Your task to perform on an android device: What's the weather going to be tomorrow? Image 0: 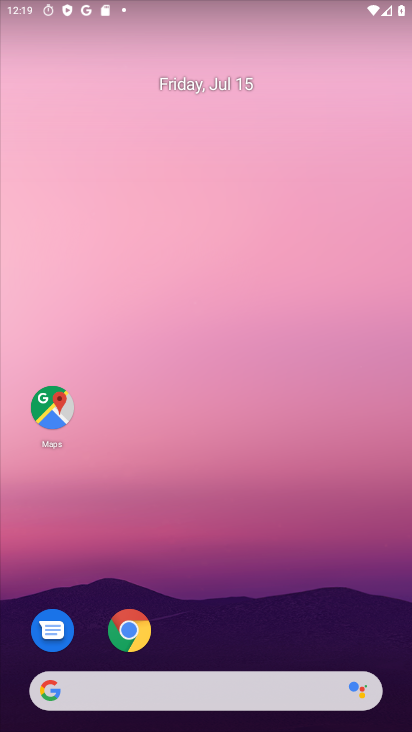
Step 0: drag from (250, 293) to (257, 237)
Your task to perform on an android device: What's the weather going to be tomorrow? Image 1: 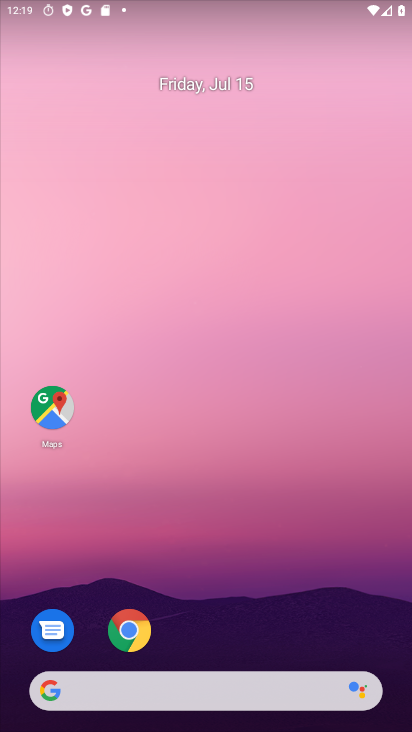
Step 1: drag from (201, 599) to (335, 177)
Your task to perform on an android device: What's the weather going to be tomorrow? Image 2: 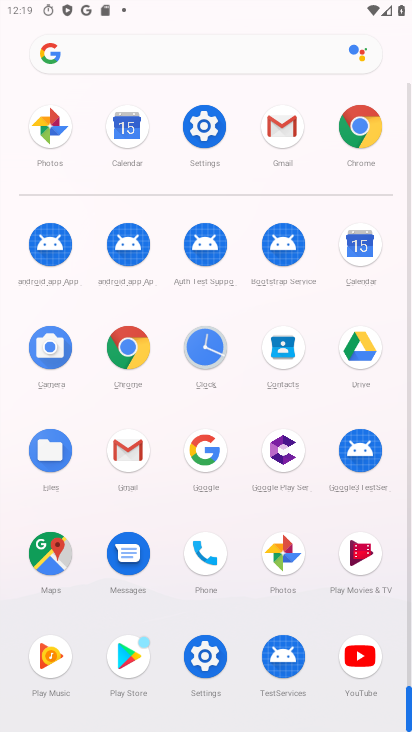
Step 2: click (187, 37)
Your task to perform on an android device: What's the weather going to be tomorrow? Image 3: 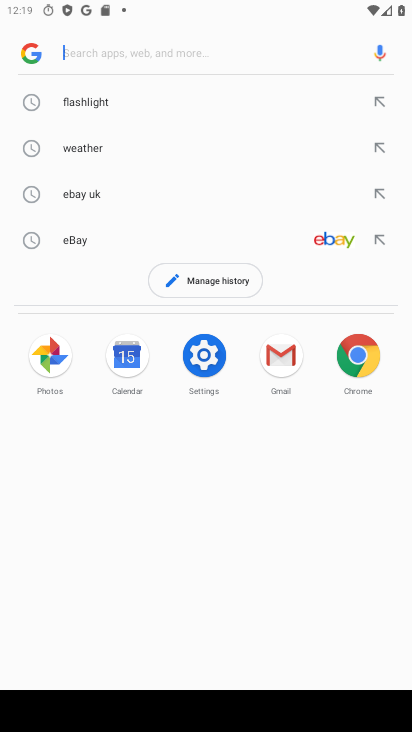
Step 3: type "What's the weather going to be tomorrow?"
Your task to perform on an android device: What's the weather going to be tomorrow? Image 4: 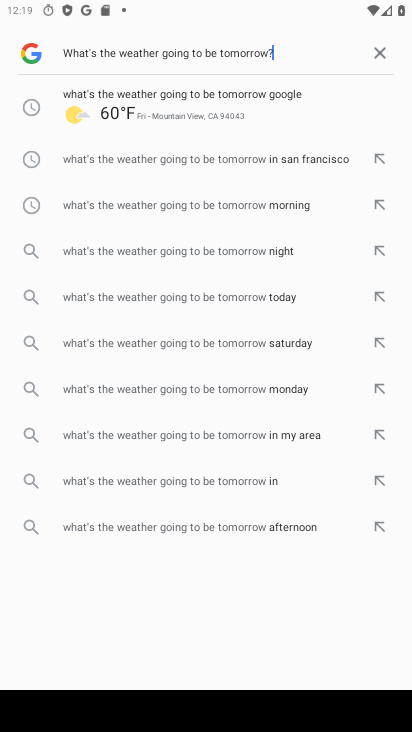
Step 4: click (90, 54)
Your task to perform on an android device: What's the weather going to be tomorrow? Image 5: 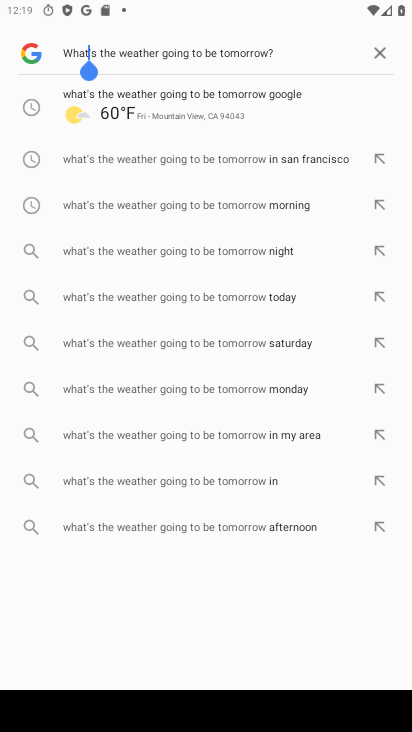
Step 5: click (154, 96)
Your task to perform on an android device: What's the weather going to be tomorrow? Image 6: 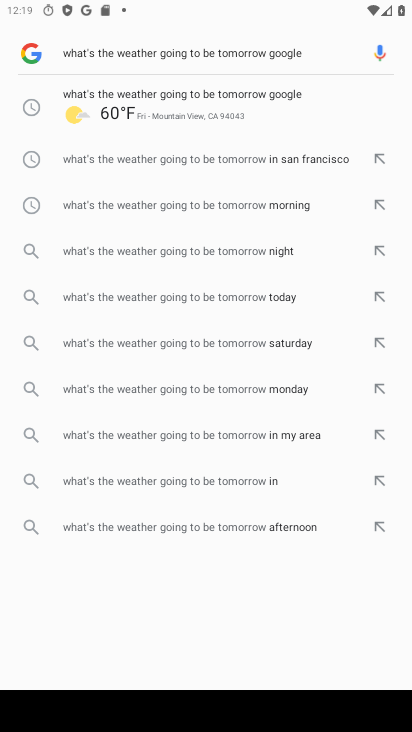
Step 6: task complete